Your task to perform on an android device: Check the news Image 0: 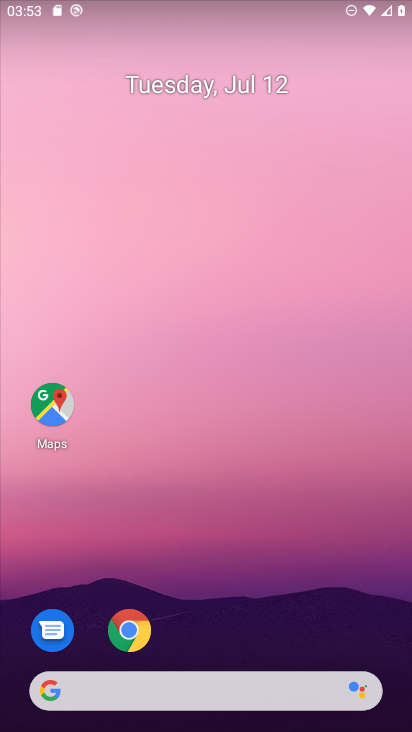
Step 0: drag from (15, 237) to (410, 242)
Your task to perform on an android device: Check the news Image 1: 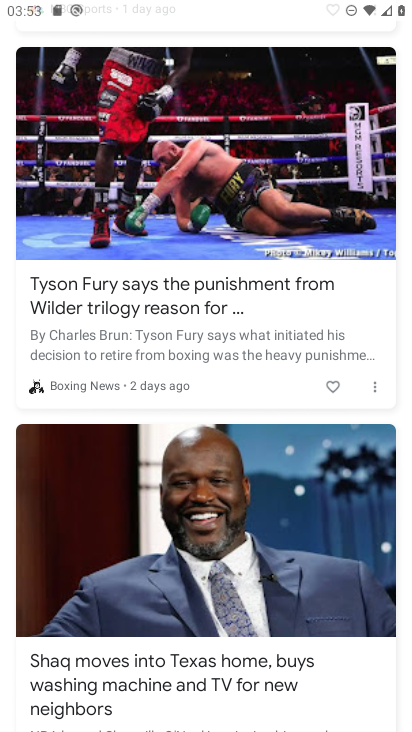
Step 1: task complete